Your task to perform on an android device: check google app version Image 0: 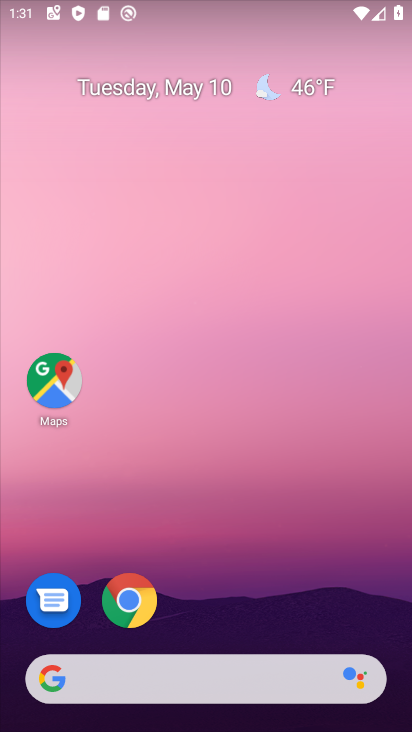
Step 0: press home button
Your task to perform on an android device: check google app version Image 1: 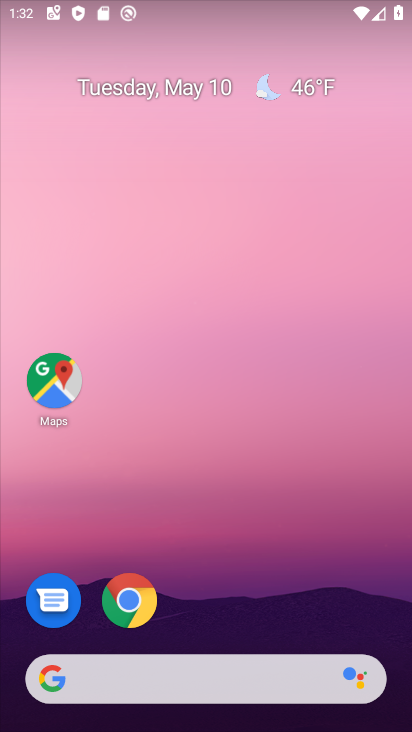
Step 1: drag from (142, 676) to (225, 319)
Your task to perform on an android device: check google app version Image 2: 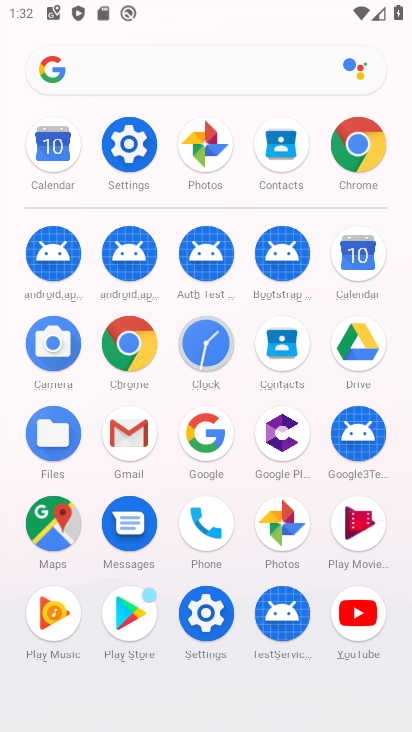
Step 2: click (208, 434)
Your task to perform on an android device: check google app version Image 3: 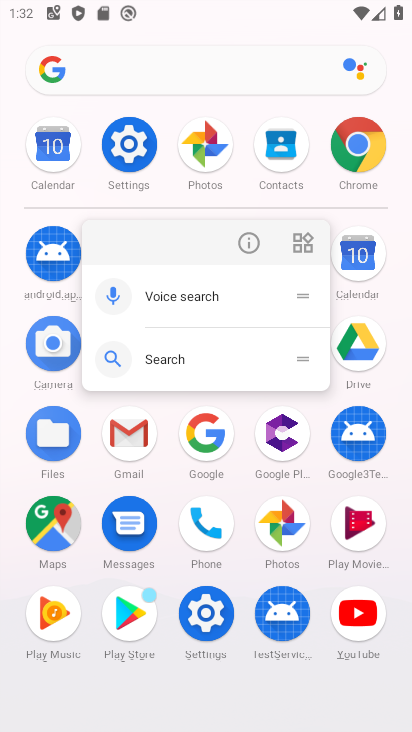
Step 3: click (243, 245)
Your task to perform on an android device: check google app version Image 4: 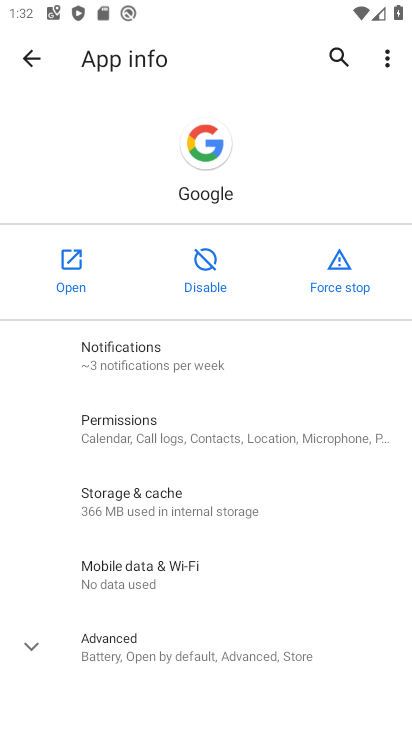
Step 4: drag from (169, 621) to (301, 143)
Your task to perform on an android device: check google app version Image 5: 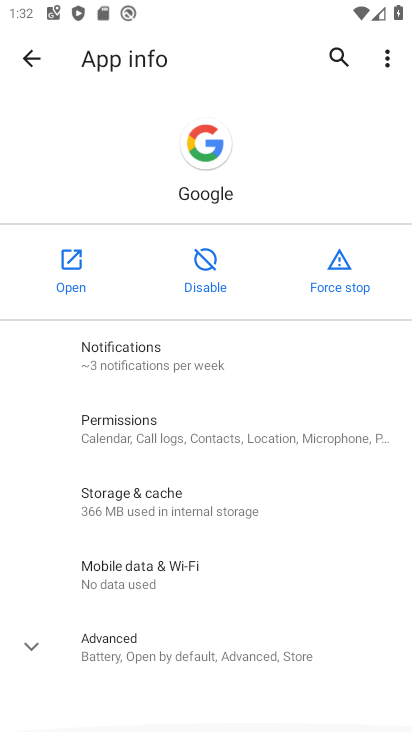
Step 5: click (170, 647)
Your task to perform on an android device: check google app version Image 6: 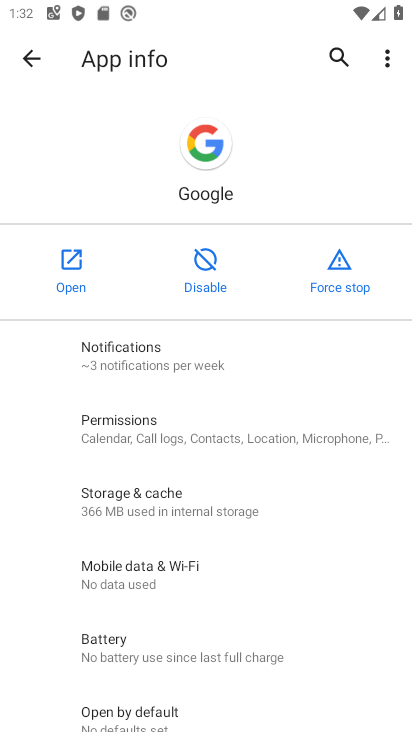
Step 6: task complete